Your task to perform on an android device: Open accessibility settings Image 0: 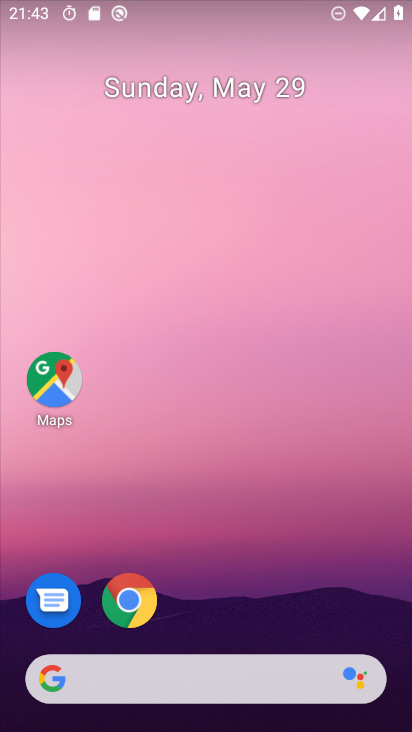
Step 0: press home button
Your task to perform on an android device: Open accessibility settings Image 1: 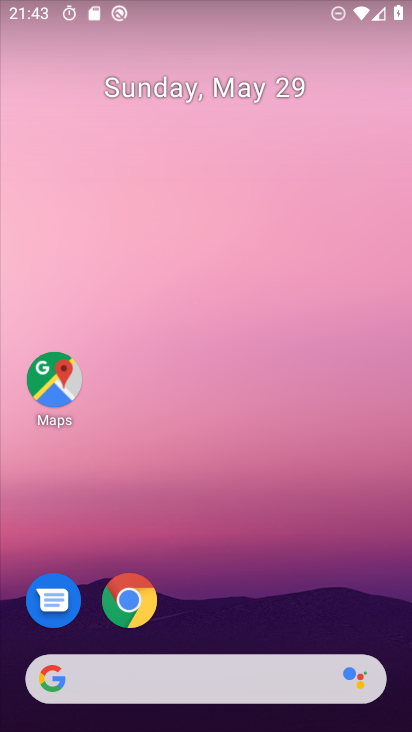
Step 1: drag from (364, 584) to (331, 156)
Your task to perform on an android device: Open accessibility settings Image 2: 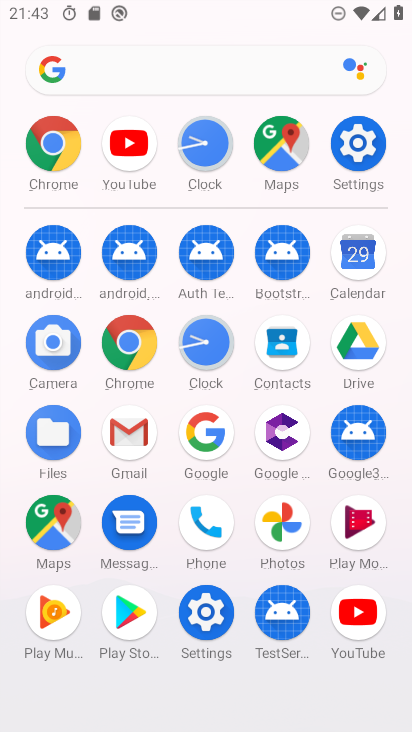
Step 2: click (371, 149)
Your task to perform on an android device: Open accessibility settings Image 3: 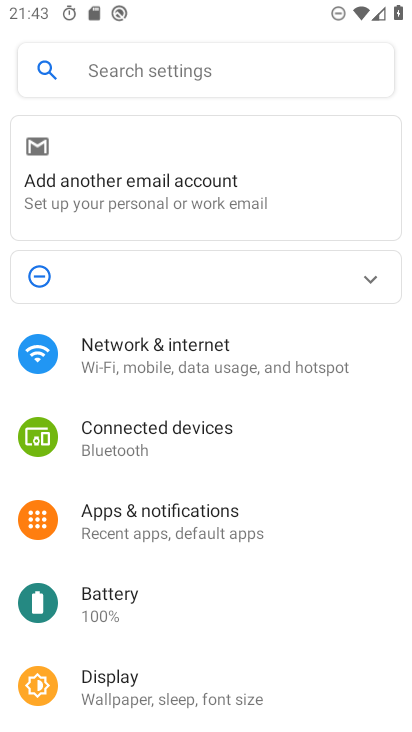
Step 3: drag from (242, 615) to (314, 194)
Your task to perform on an android device: Open accessibility settings Image 4: 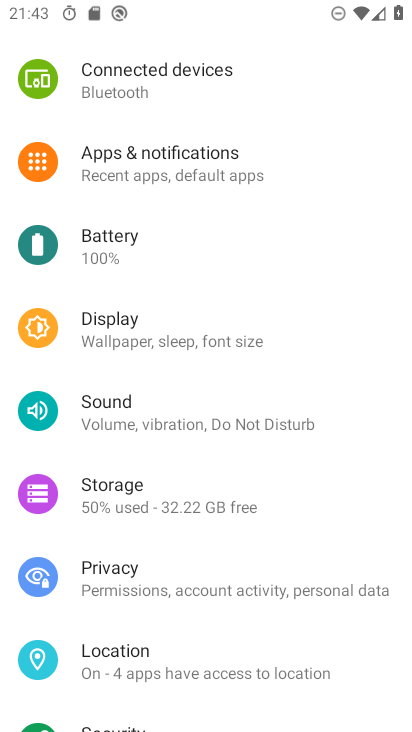
Step 4: drag from (297, 567) to (321, 257)
Your task to perform on an android device: Open accessibility settings Image 5: 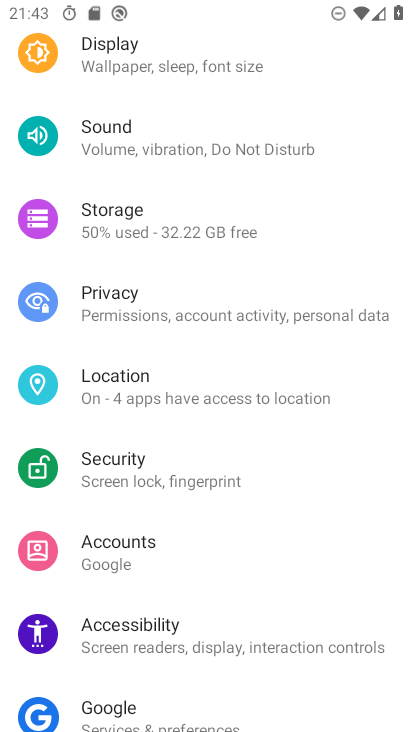
Step 5: click (206, 650)
Your task to perform on an android device: Open accessibility settings Image 6: 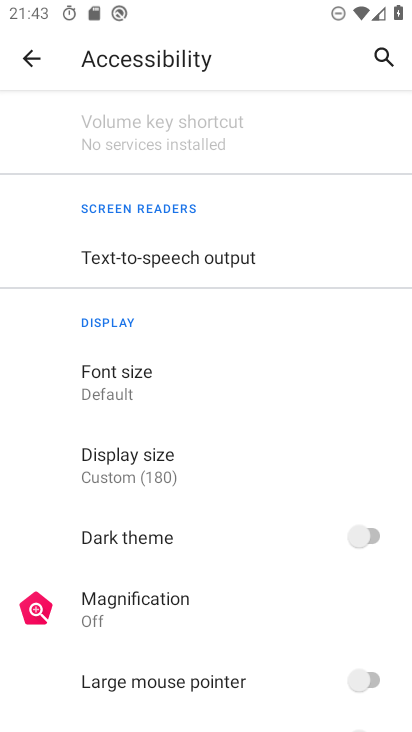
Step 6: task complete